Your task to perform on an android device: Open calendar and show me the fourth week of next month Image 0: 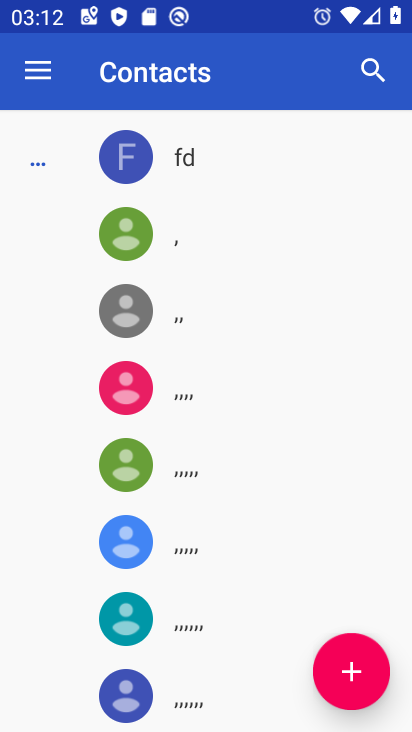
Step 0: press home button
Your task to perform on an android device: Open calendar and show me the fourth week of next month Image 1: 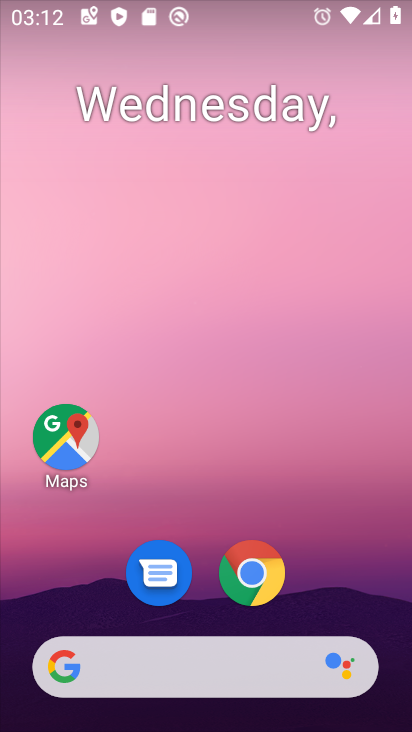
Step 1: drag from (235, 724) to (237, 145)
Your task to perform on an android device: Open calendar and show me the fourth week of next month Image 2: 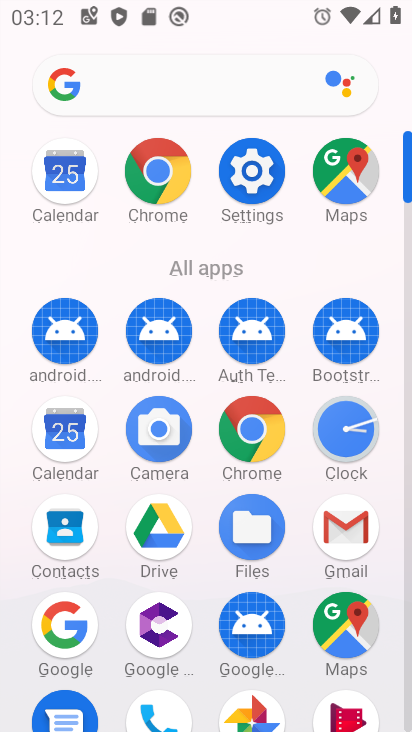
Step 2: click (63, 435)
Your task to perform on an android device: Open calendar and show me the fourth week of next month Image 3: 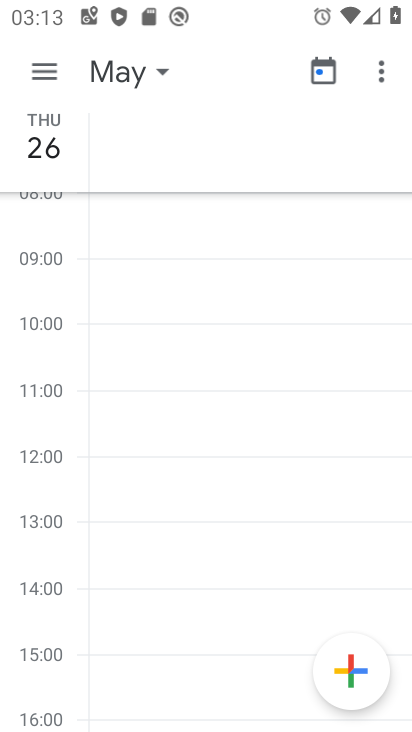
Step 3: click (149, 72)
Your task to perform on an android device: Open calendar and show me the fourth week of next month Image 4: 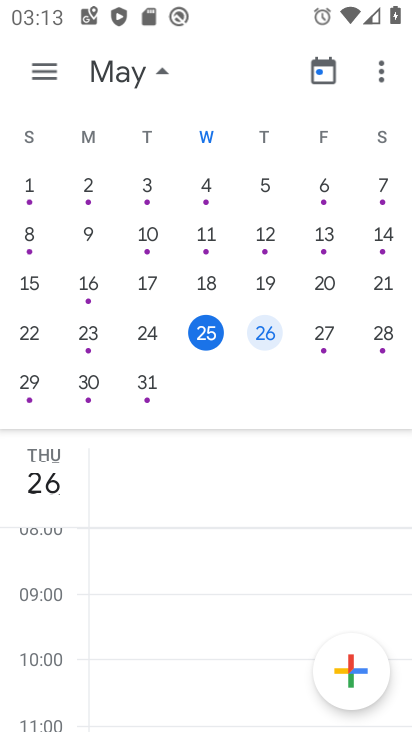
Step 4: drag from (357, 261) to (4, 289)
Your task to perform on an android device: Open calendar and show me the fourth week of next month Image 5: 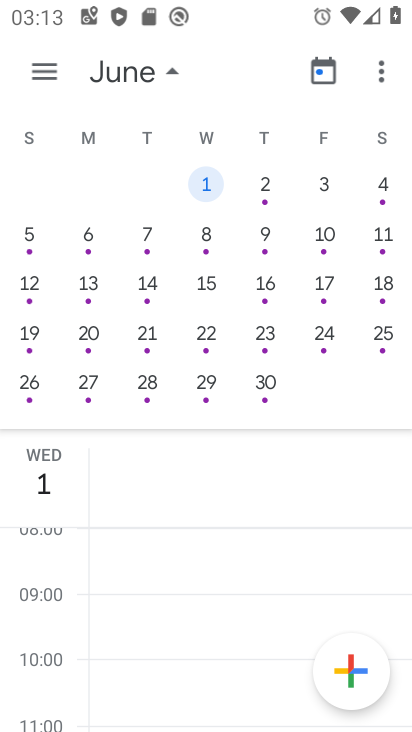
Step 5: click (86, 376)
Your task to perform on an android device: Open calendar and show me the fourth week of next month Image 6: 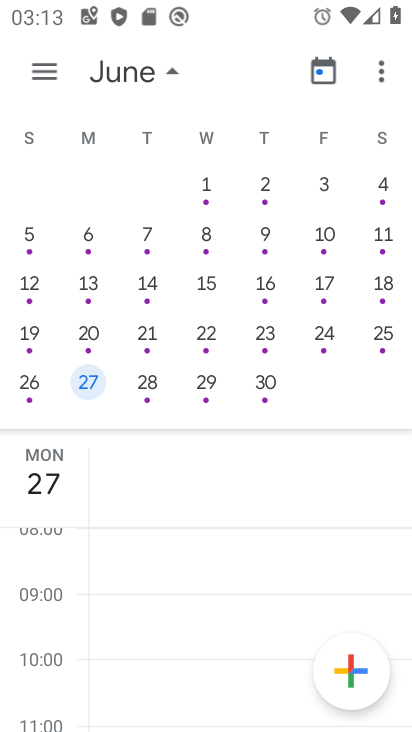
Step 6: click (50, 77)
Your task to perform on an android device: Open calendar and show me the fourth week of next month Image 7: 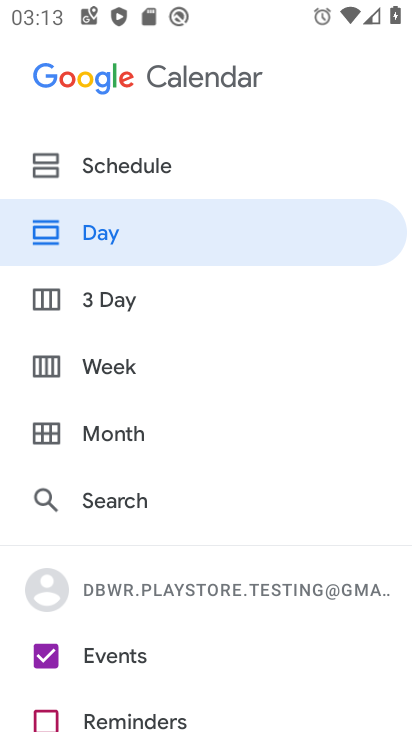
Step 7: click (104, 364)
Your task to perform on an android device: Open calendar and show me the fourth week of next month Image 8: 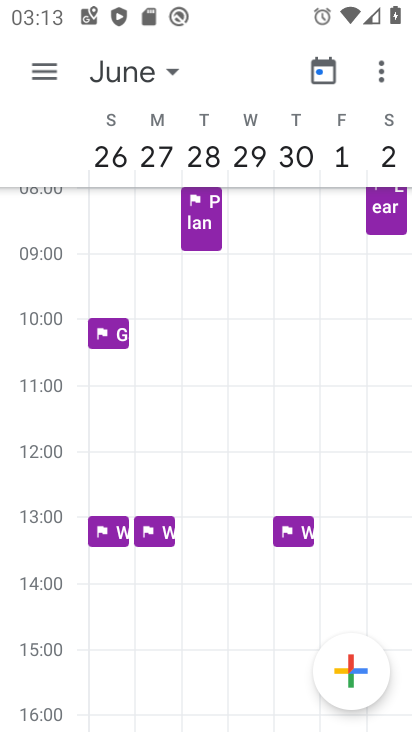
Step 8: task complete